Your task to perform on an android device: Go to Google Image 0: 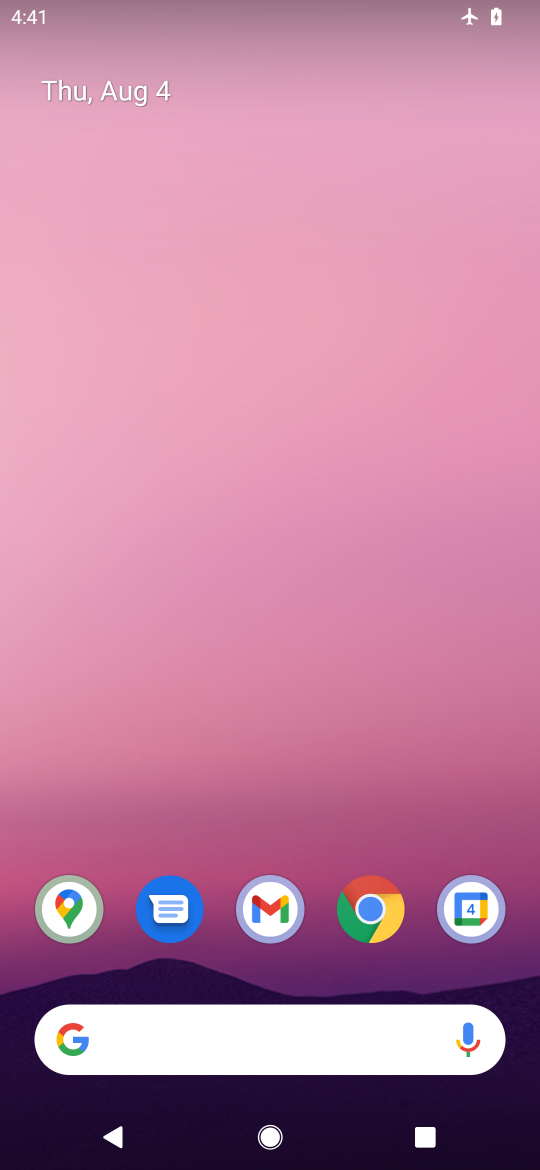
Step 0: drag from (397, 799) to (529, 635)
Your task to perform on an android device: Go to Google Image 1: 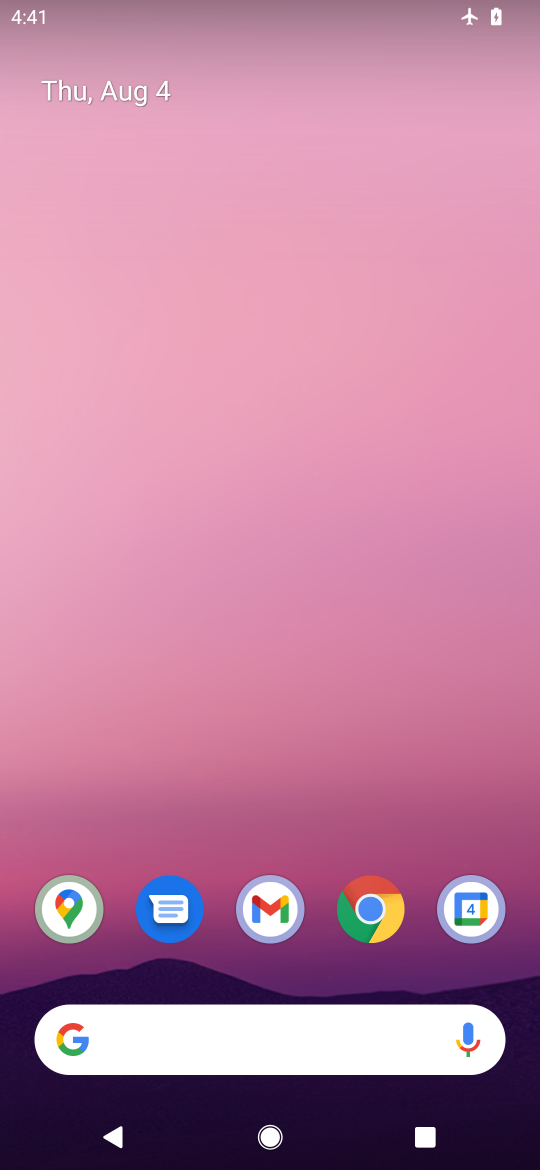
Step 1: click (376, 577)
Your task to perform on an android device: Go to Google Image 2: 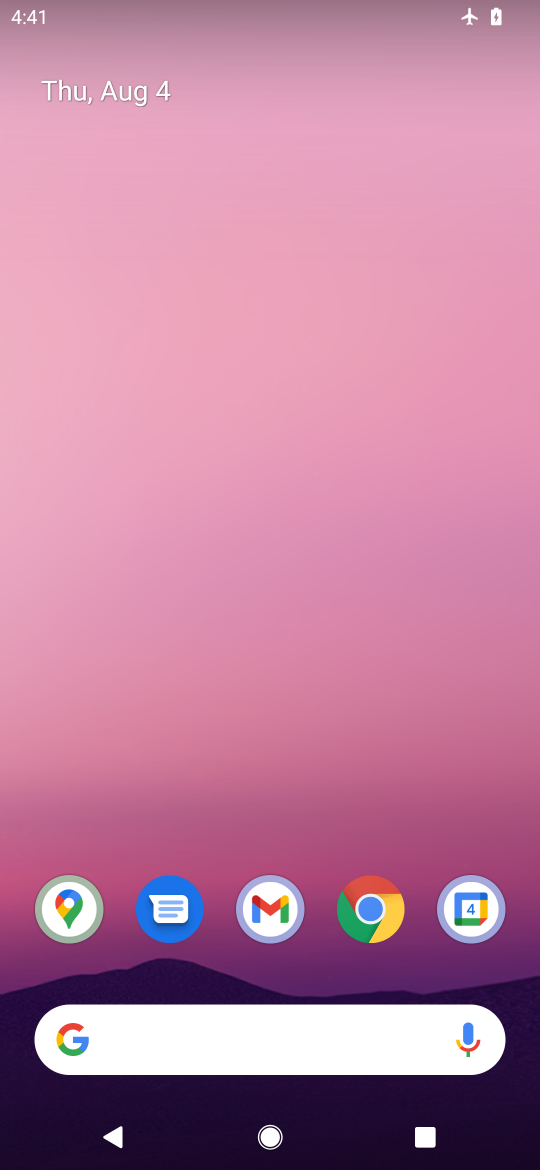
Step 2: drag from (389, 518) to (534, 545)
Your task to perform on an android device: Go to Google Image 3: 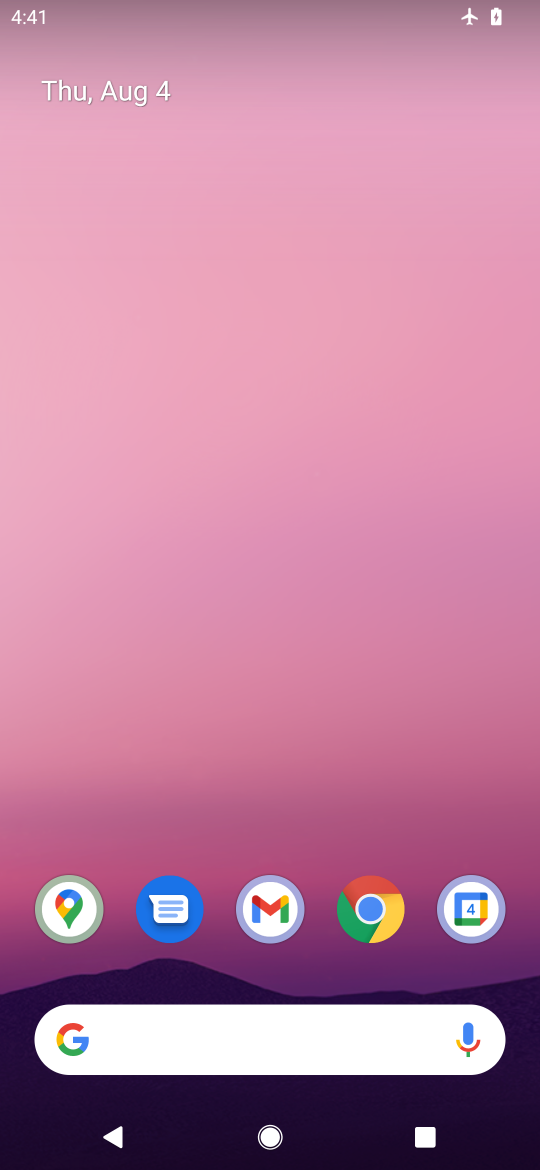
Step 3: drag from (293, 833) to (523, 81)
Your task to perform on an android device: Go to Google Image 4: 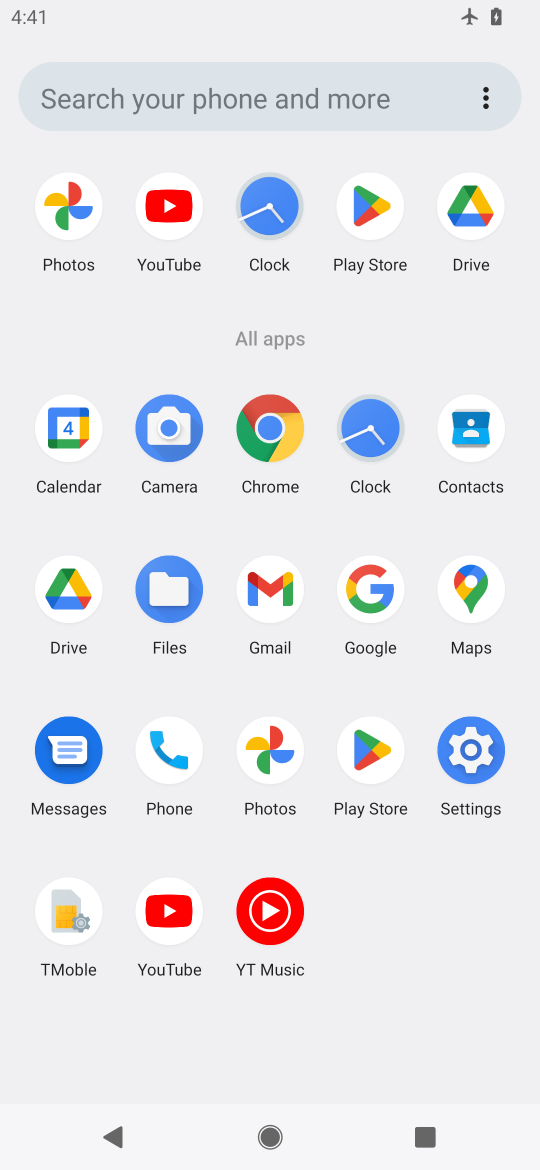
Step 4: click (374, 583)
Your task to perform on an android device: Go to Google Image 5: 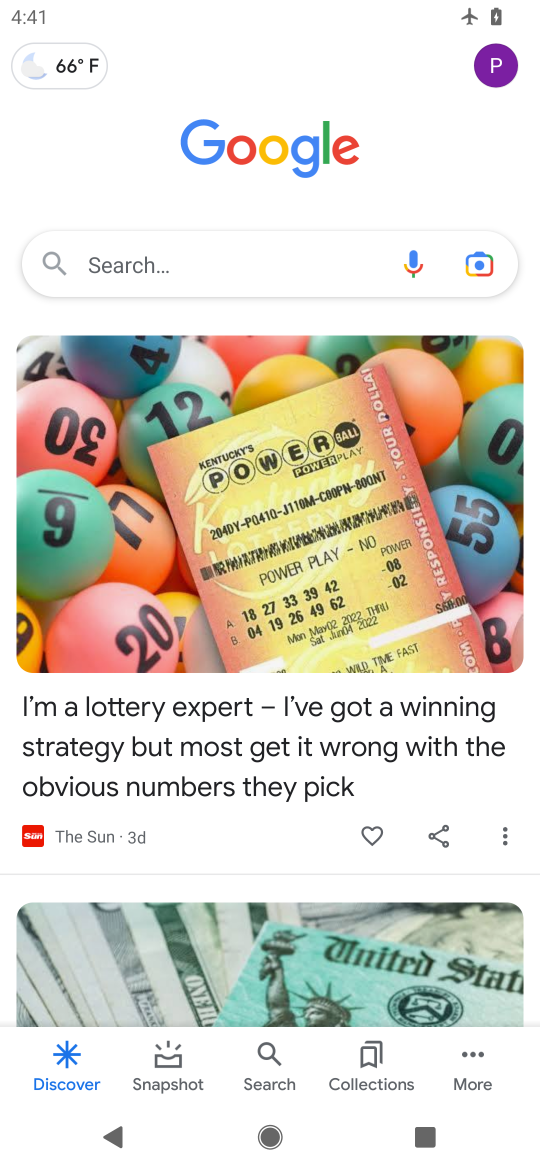
Step 5: task complete